Your task to perform on an android device: Set the phone to "Do not disturb". Image 0: 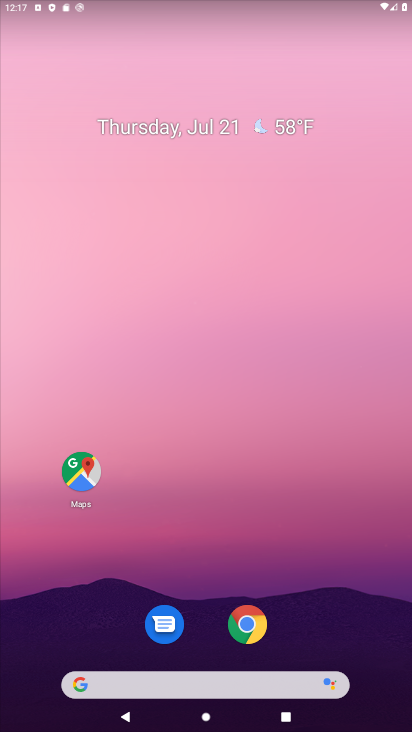
Step 0: drag from (197, 572) to (183, 180)
Your task to perform on an android device: Set the phone to "Do not disturb". Image 1: 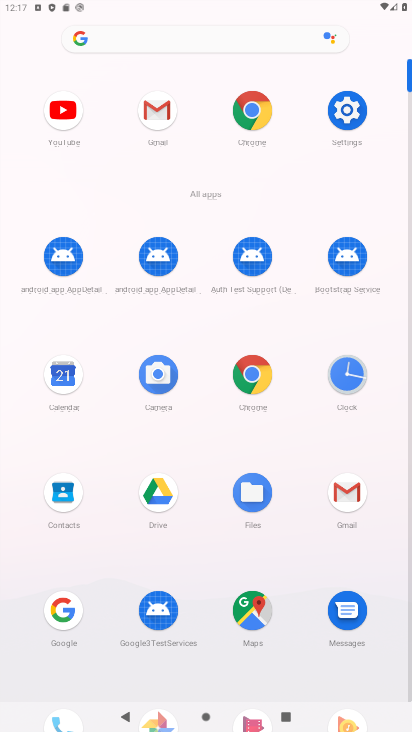
Step 1: click (348, 114)
Your task to perform on an android device: Set the phone to "Do not disturb". Image 2: 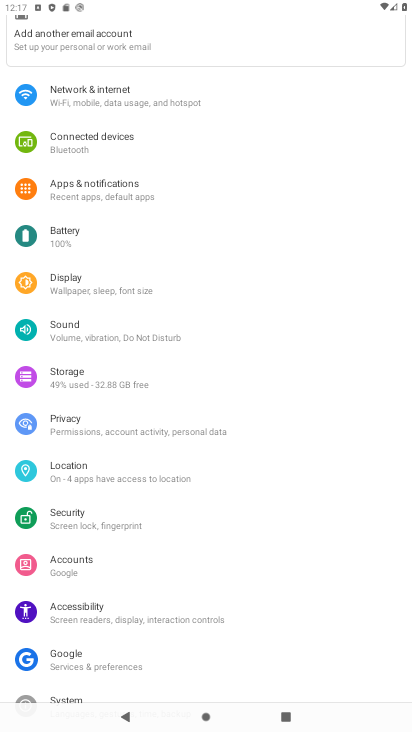
Step 2: click (104, 330)
Your task to perform on an android device: Set the phone to "Do not disturb". Image 3: 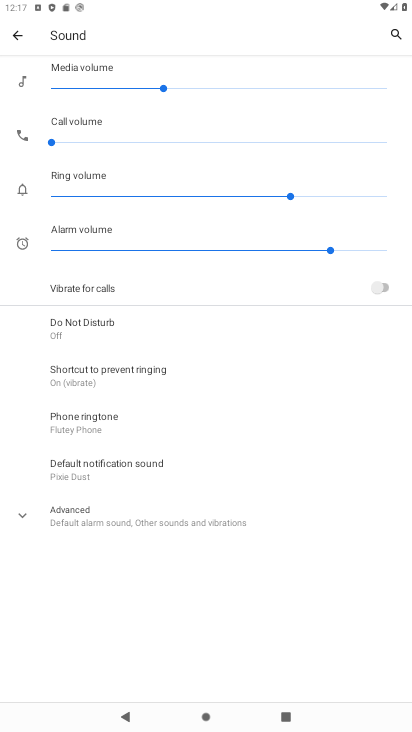
Step 3: click (125, 340)
Your task to perform on an android device: Set the phone to "Do not disturb". Image 4: 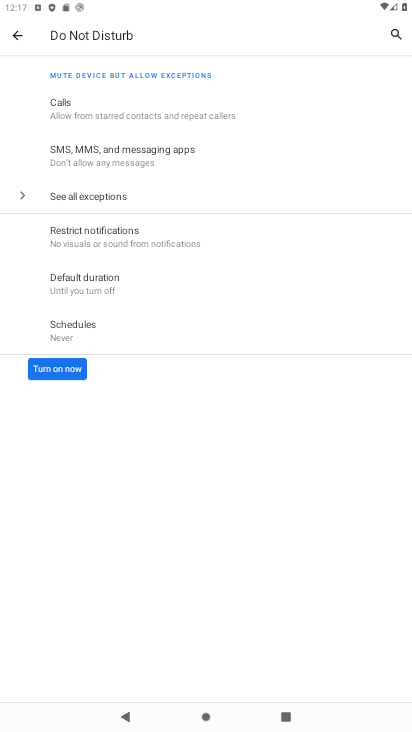
Step 4: click (57, 369)
Your task to perform on an android device: Set the phone to "Do not disturb". Image 5: 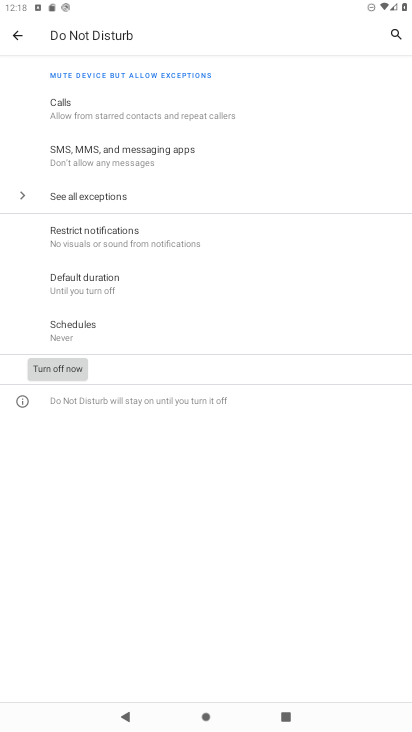
Step 5: task complete